Your task to perform on an android device: turn off location history Image 0: 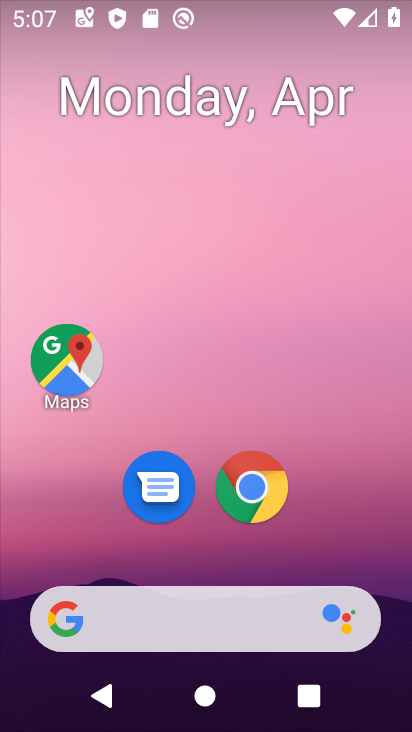
Step 0: click (77, 368)
Your task to perform on an android device: turn off location history Image 1: 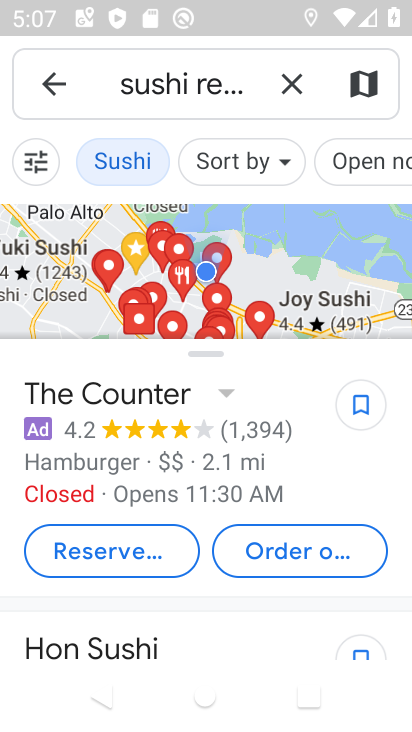
Step 1: click (295, 87)
Your task to perform on an android device: turn off location history Image 2: 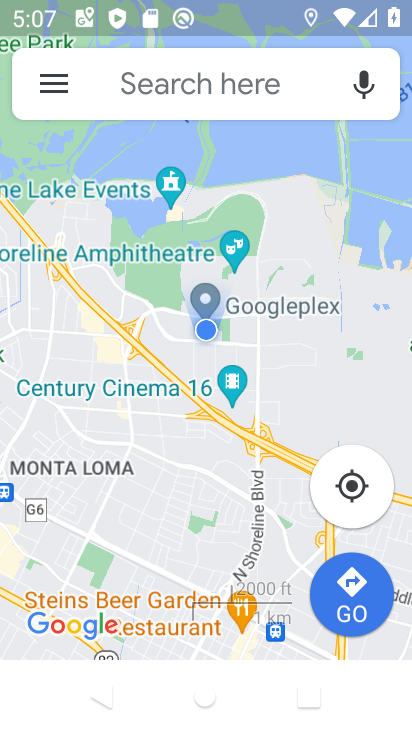
Step 2: click (55, 82)
Your task to perform on an android device: turn off location history Image 3: 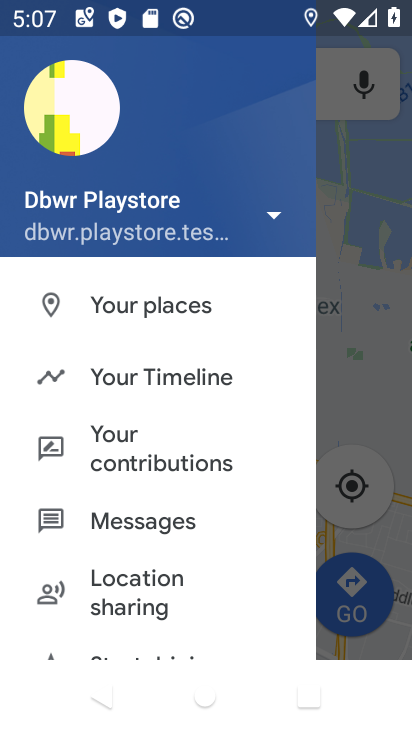
Step 3: click (210, 387)
Your task to perform on an android device: turn off location history Image 4: 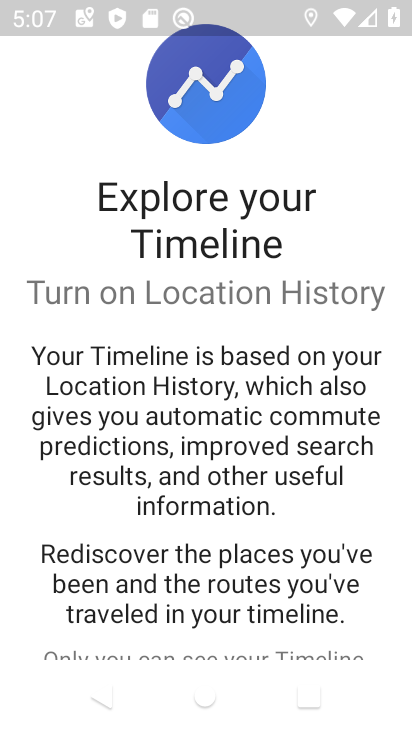
Step 4: drag from (269, 623) to (254, 196)
Your task to perform on an android device: turn off location history Image 5: 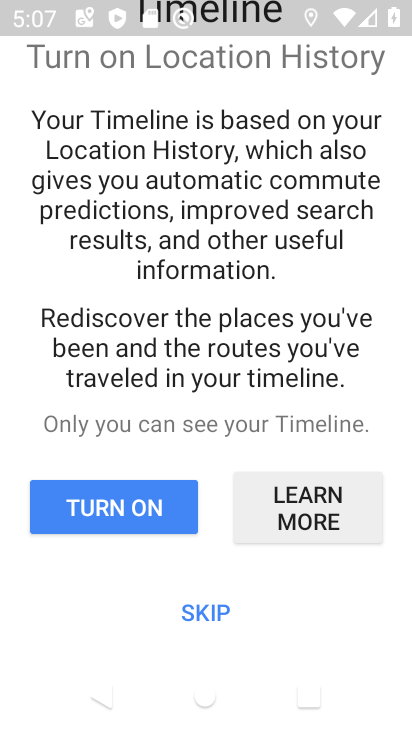
Step 5: click (199, 619)
Your task to perform on an android device: turn off location history Image 6: 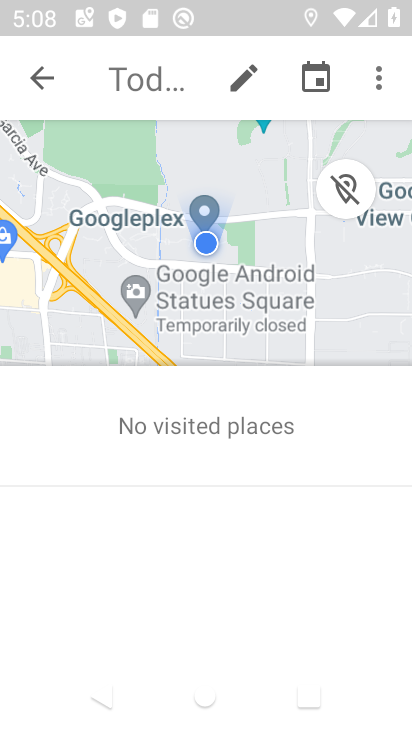
Step 6: click (379, 82)
Your task to perform on an android device: turn off location history Image 7: 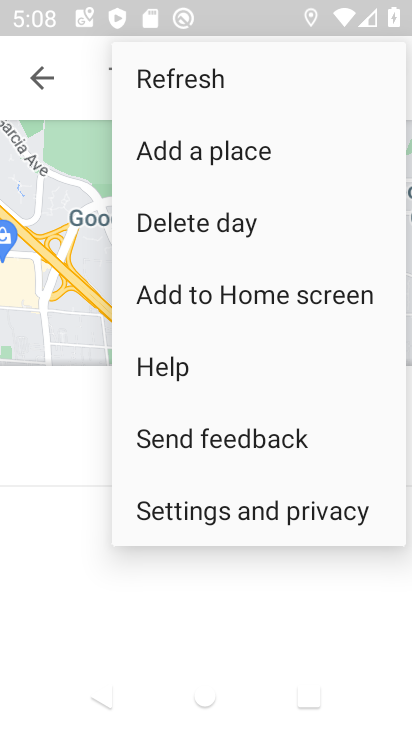
Step 7: click (285, 516)
Your task to perform on an android device: turn off location history Image 8: 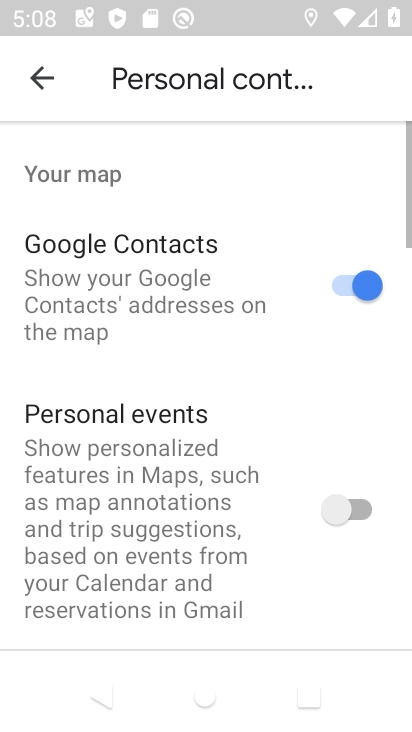
Step 8: task complete